Your task to perform on an android device: turn off notifications in google photos Image 0: 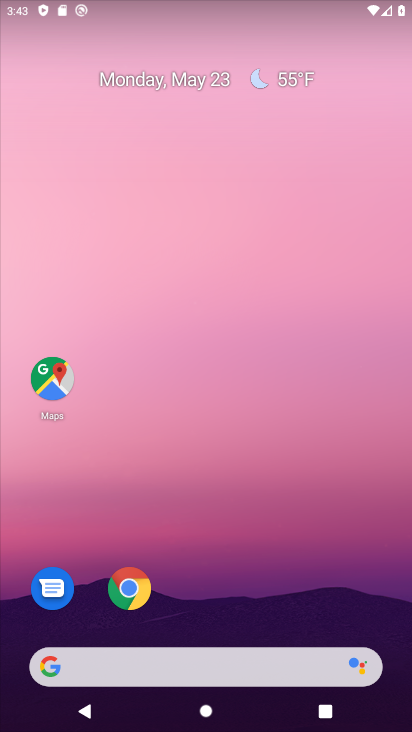
Step 0: drag from (241, 577) to (200, 147)
Your task to perform on an android device: turn off notifications in google photos Image 1: 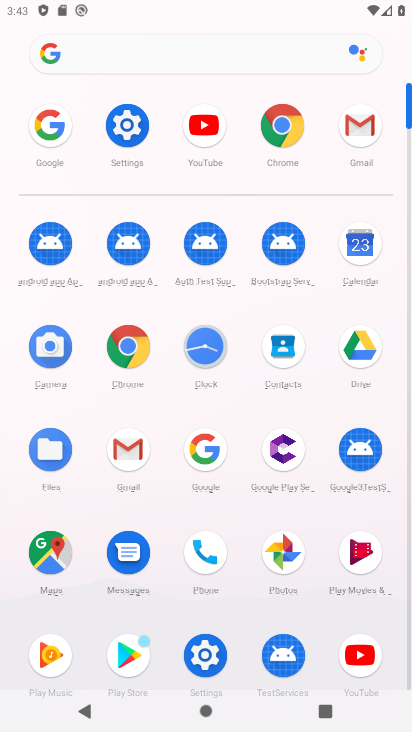
Step 1: click (280, 553)
Your task to perform on an android device: turn off notifications in google photos Image 2: 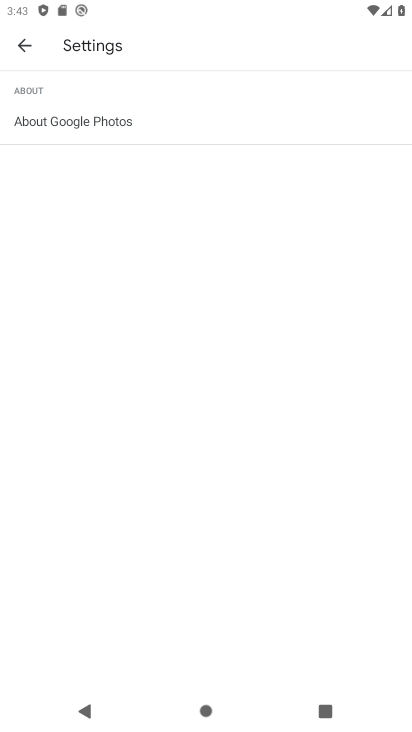
Step 2: press back button
Your task to perform on an android device: turn off notifications in google photos Image 3: 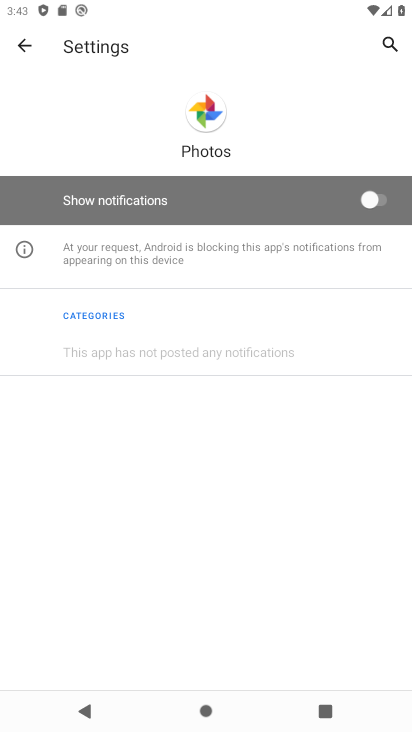
Step 3: press back button
Your task to perform on an android device: turn off notifications in google photos Image 4: 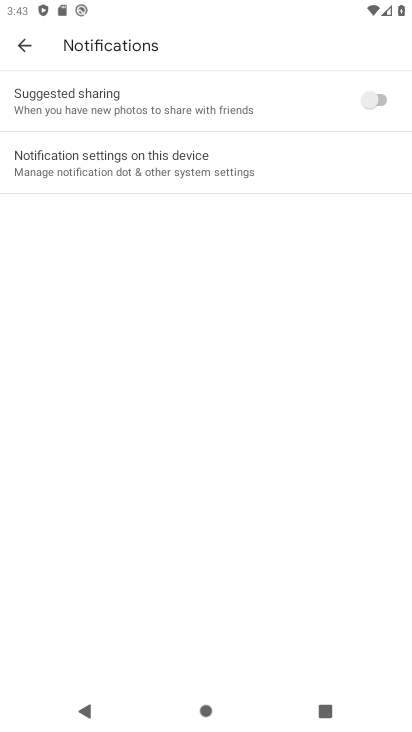
Step 4: click (120, 173)
Your task to perform on an android device: turn off notifications in google photos Image 5: 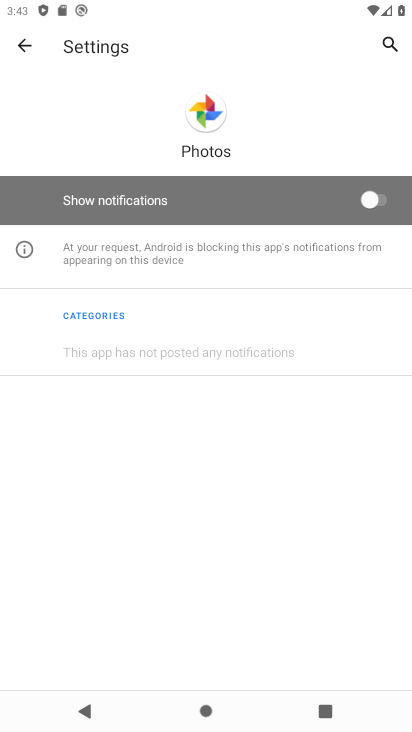
Step 5: task complete